Your task to perform on an android device: check android version Image 0: 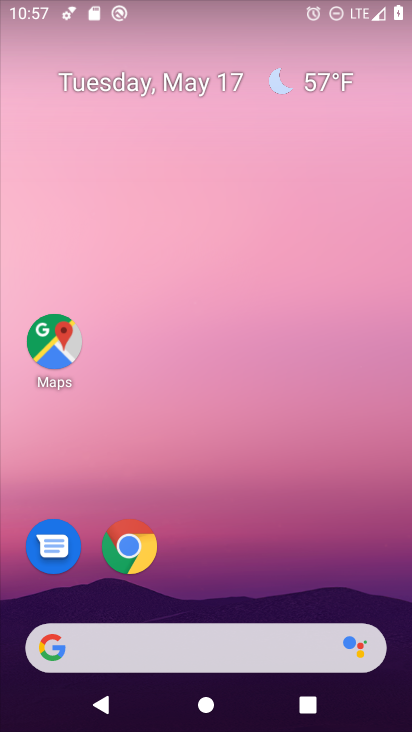
Step 0: drag from (275, 607) to (245, 33)
Your task to perform on an android device: check android version Image 1: 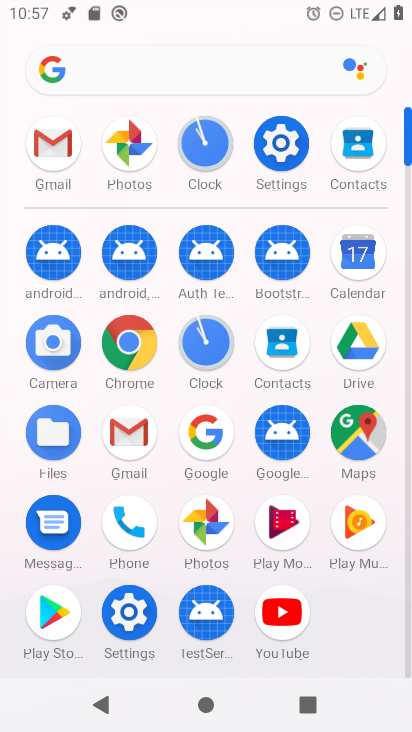
Step 1: click (284, 148)
Your task to perform on an android device: check android version Image 2: 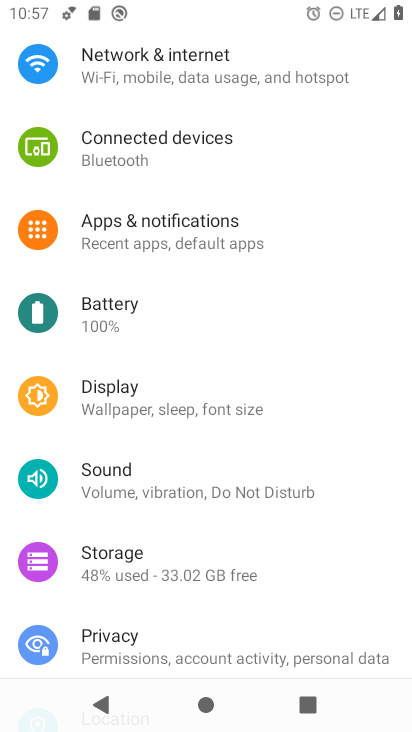
Step 2: drag from (186, 593) to (214, 154)
Your task to perform on an android device: check android version Image 3: 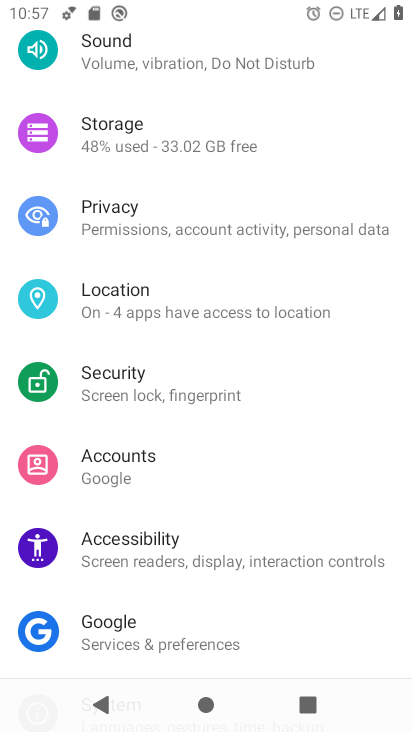
Step 3: drag from (175, 556) to (203, 250)
Your task to perform on an android device: check android version Image 4: 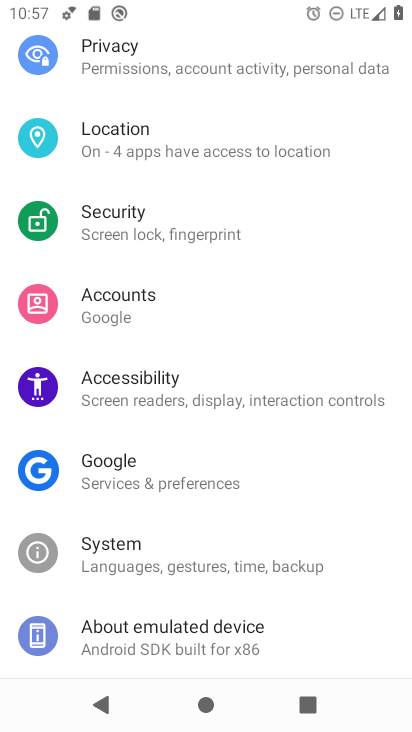
Step 4: click (132, 652)
Your task to perform on an android device: check android version Image 5: 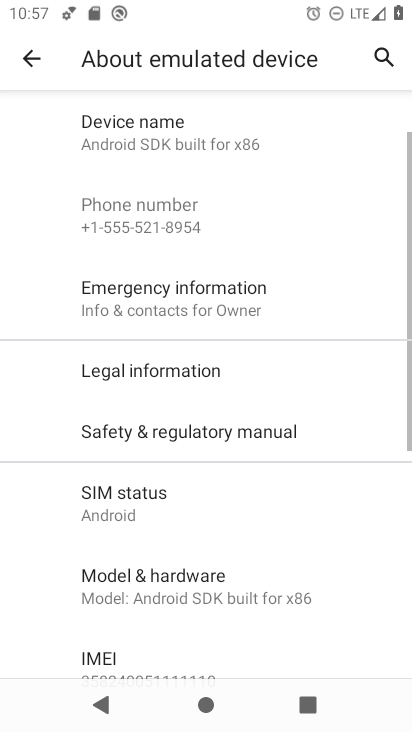
Step 5: drag from (179, 452) to (203, 110)
Your task to perform on an android device: check android version Image 6: 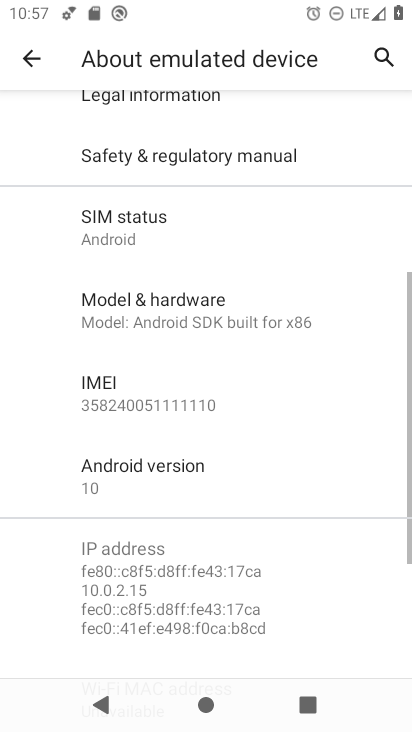
Step 6: click (90, 470)
Your task to perform on an android device: check android version Image 7: 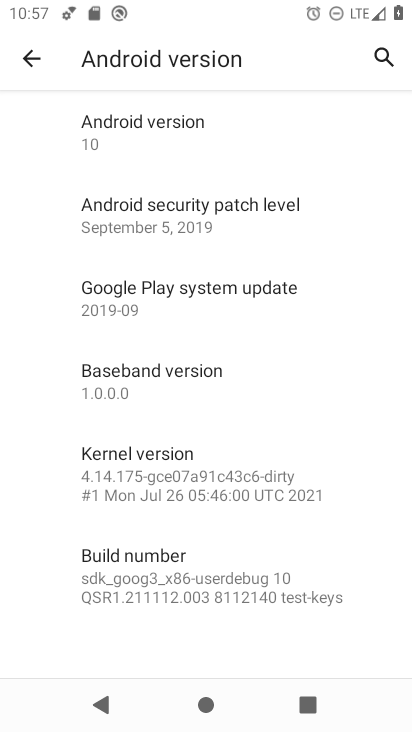
Step 7: task complete